Your task to perform on an android device: Add dell xps to the cart on ebay Image 0: 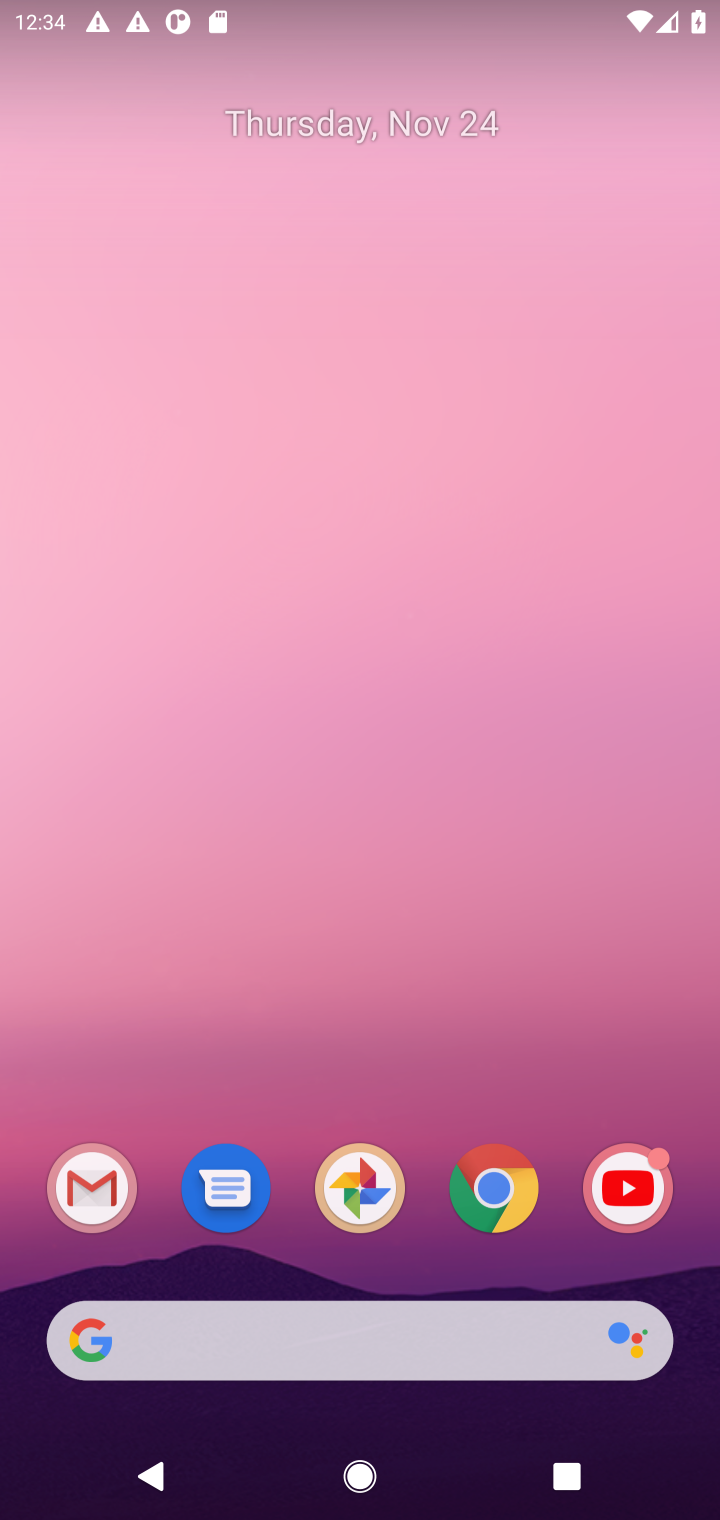
Step 0: click (533, 273)
Your task to perform on an android device: Add dell xps to the cart on ebay Image 1: 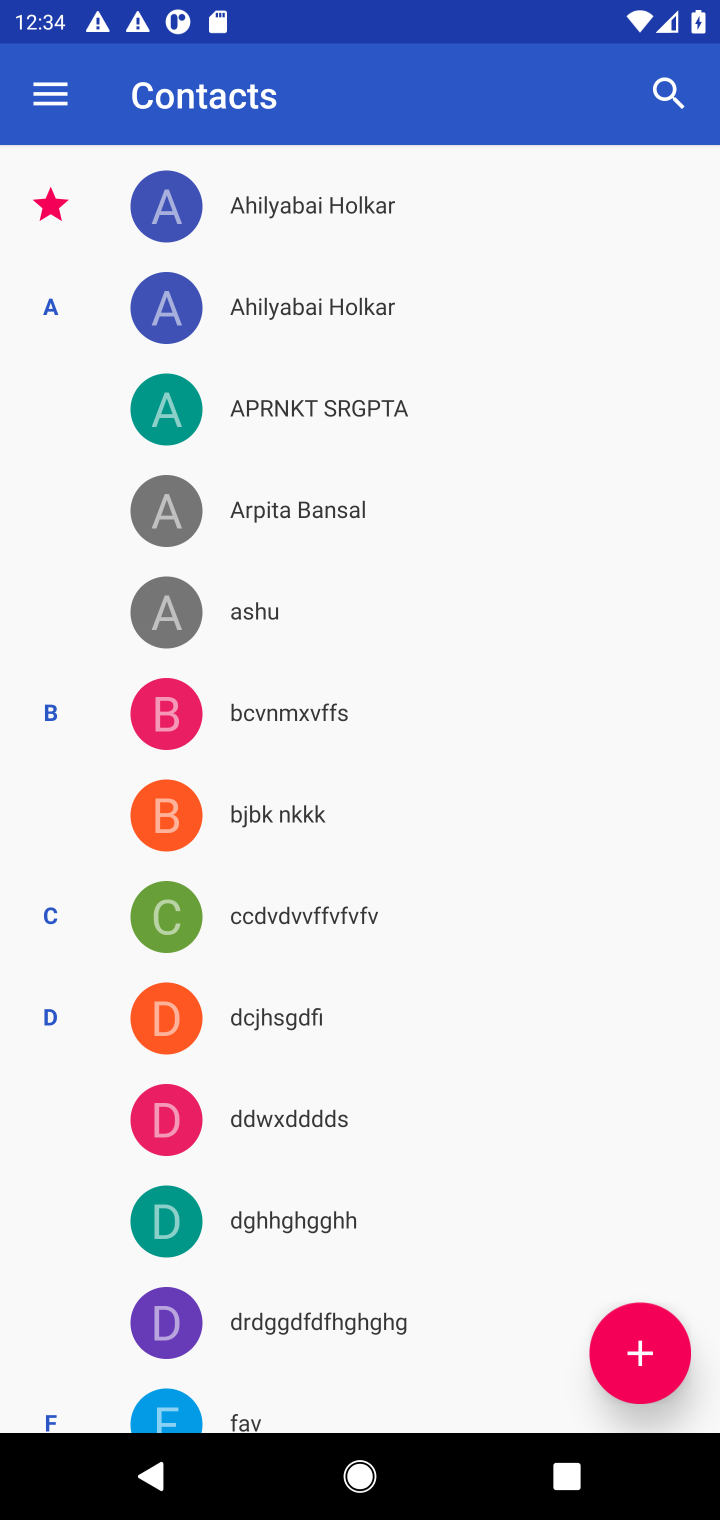
Step 1: press home button
Your task to perform on an android device: Add dell xps to the cart on ebay Image 2: 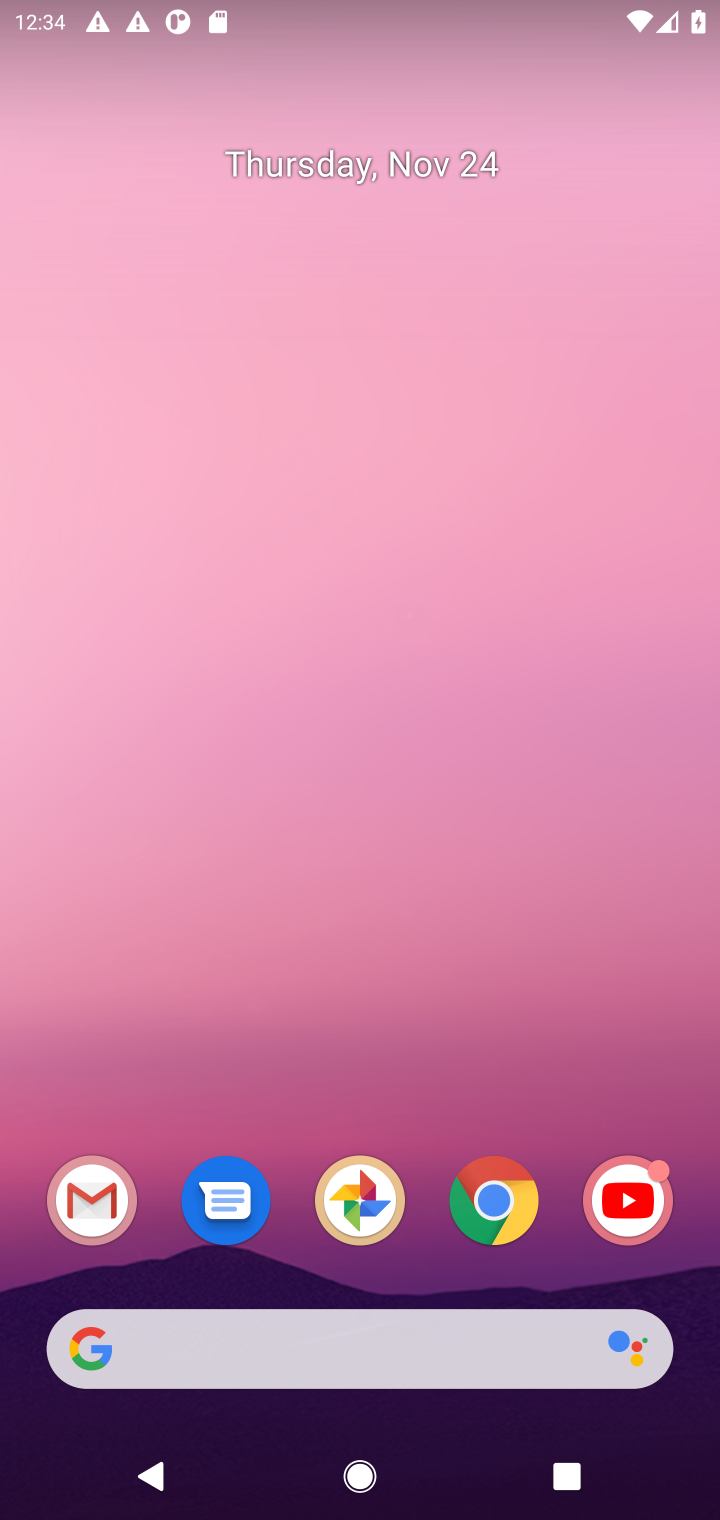
Step 2: click (248, 1367)
Your task to perform on an android device: Add dell xps to the cart on ebay Image 3: 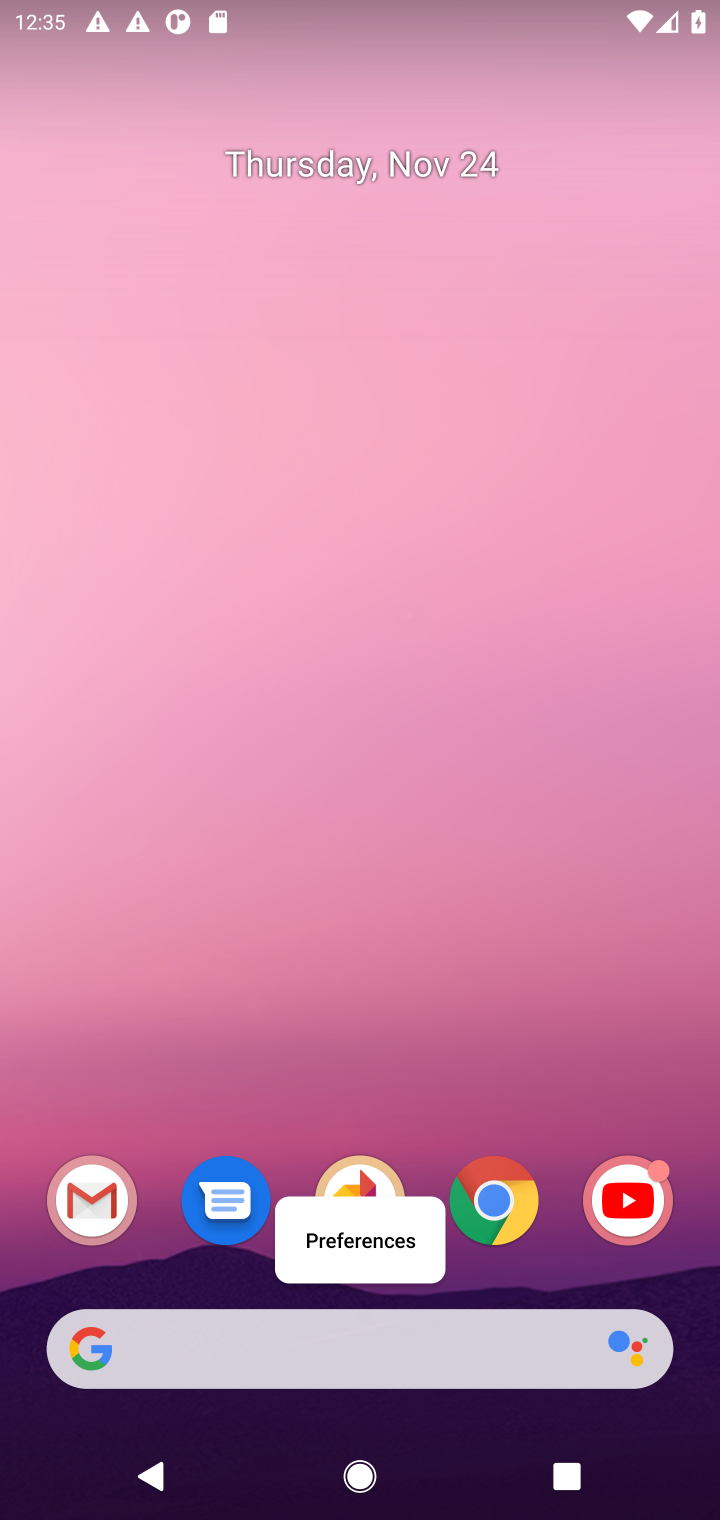
Step 3: type "ebay.com"
Your task to perform on an android device: Add dell xps to the cart on ebay Image 4: 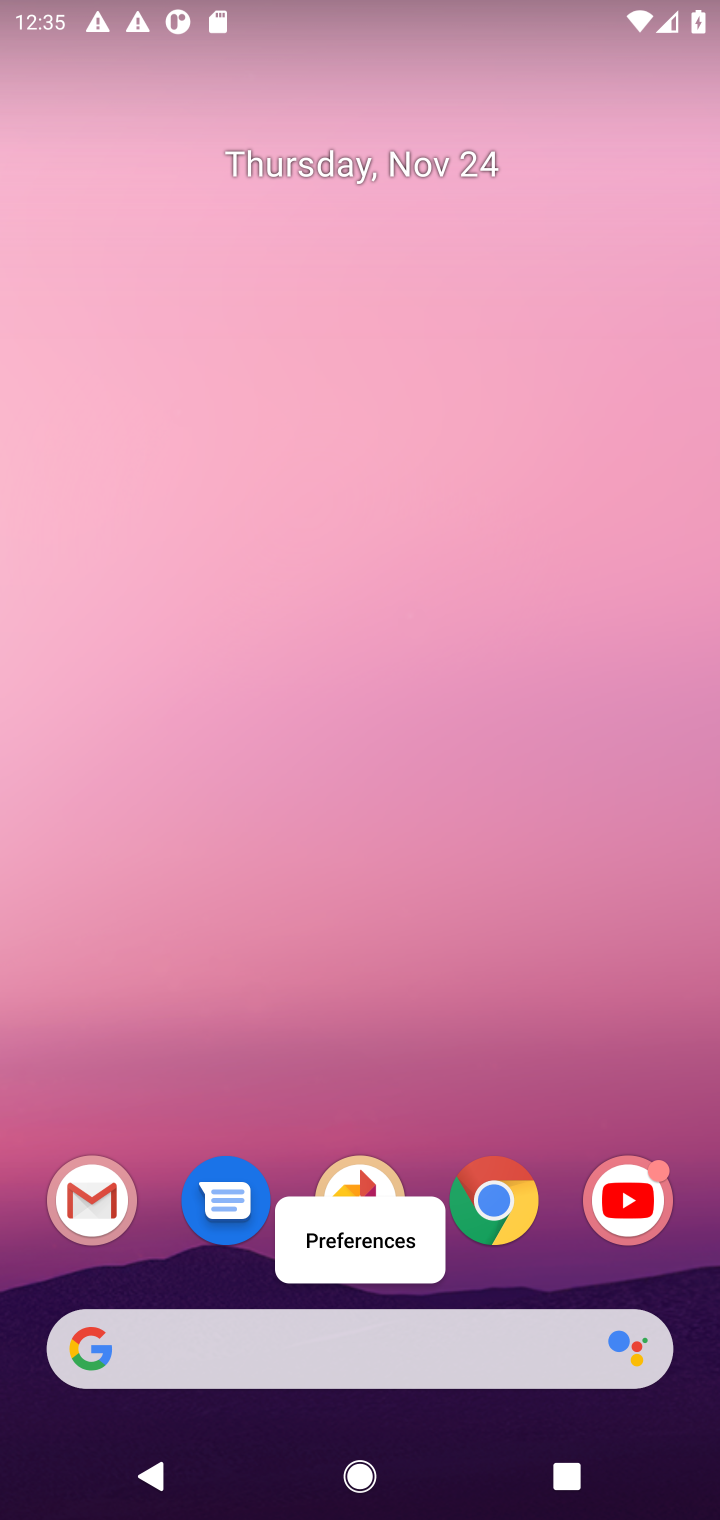
Step 4: click (345, 1338)
Your task to perform on an android device: Add dell xps to the cart on ebay Image 5: 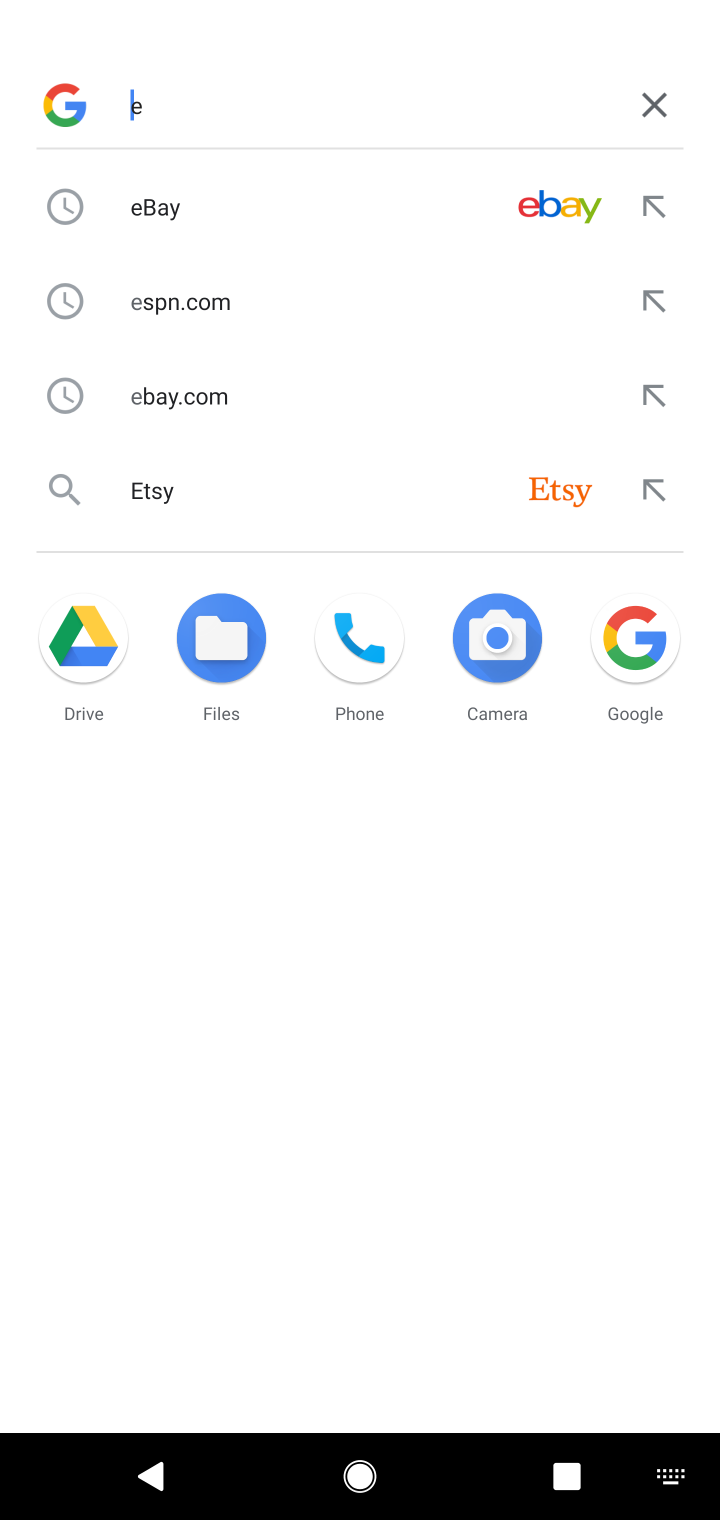
Step 5: click (257, 245)
Your task to perform on an android device: Add dell xps to the cart on ebay Image 6: 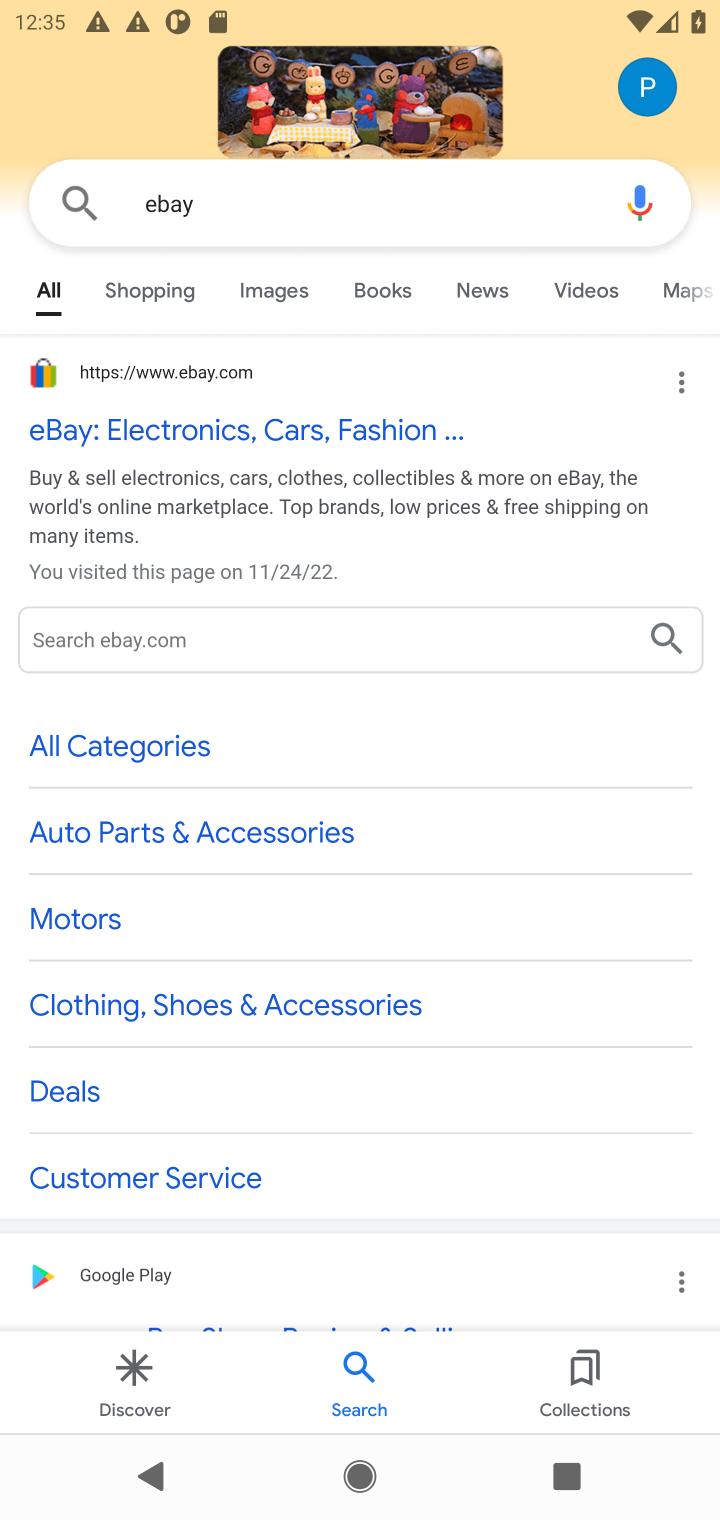
Step 6: click (266, 405)
Your task to perform on an android device: Add dell xps to the cart on ebay Image 7: 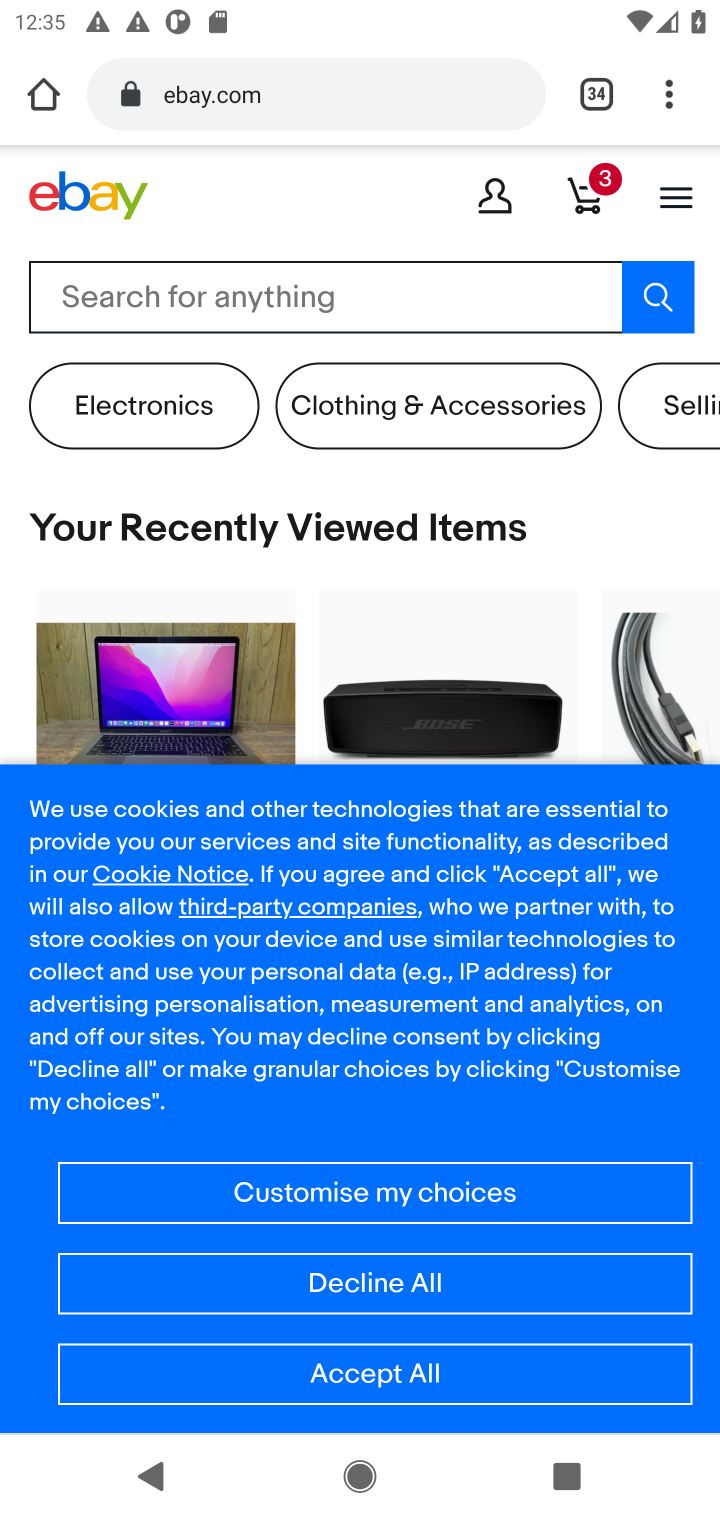
Step 7: click (262, 292)
Your task to perform on an android device: Add dell xps to the cart on ebay Image 8: 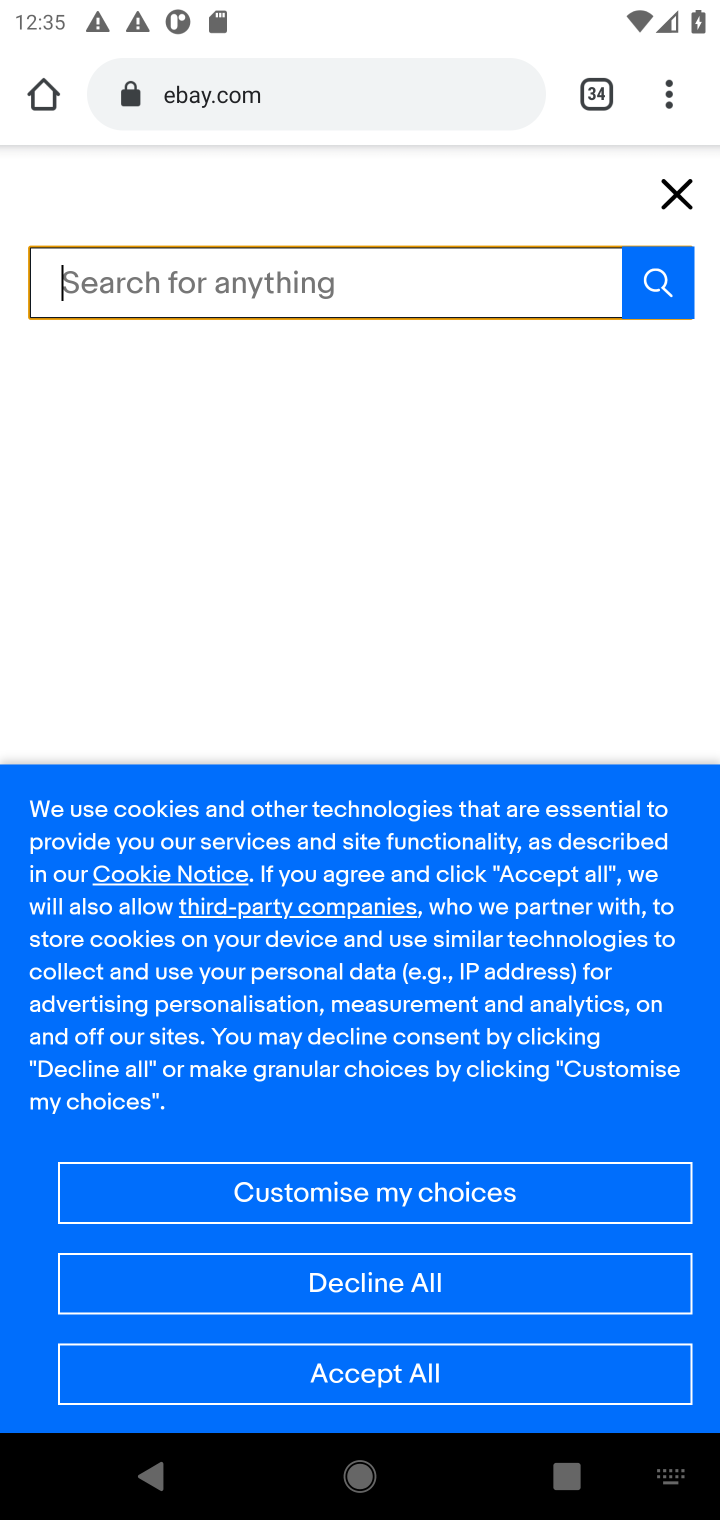
Step 8: type "dell xps"
Your task to perform on an android device: Add dell xps to the cart on ebay Image 9: 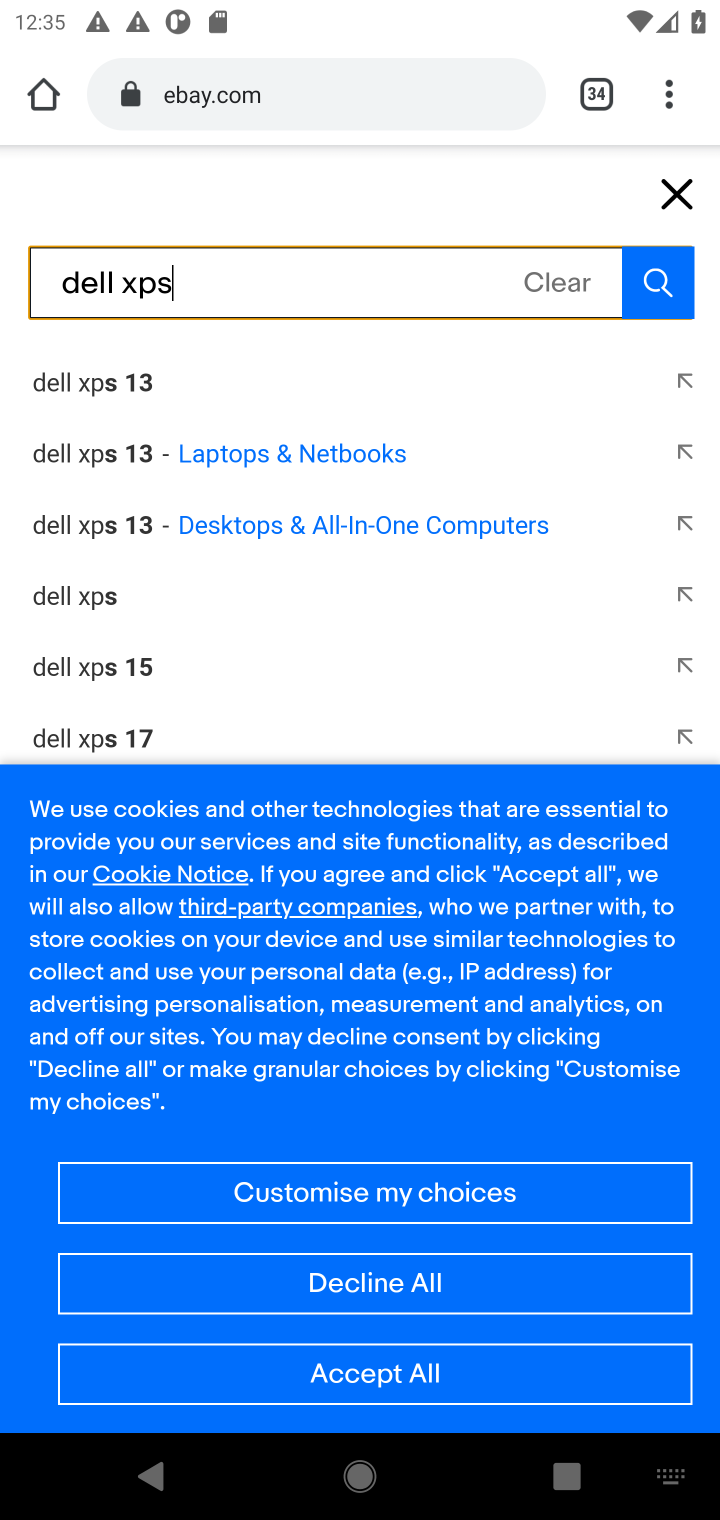
Step 9: click (664, 304)
Your task to perform on an android device: Add dell xps to the cart on ebay Image 10: 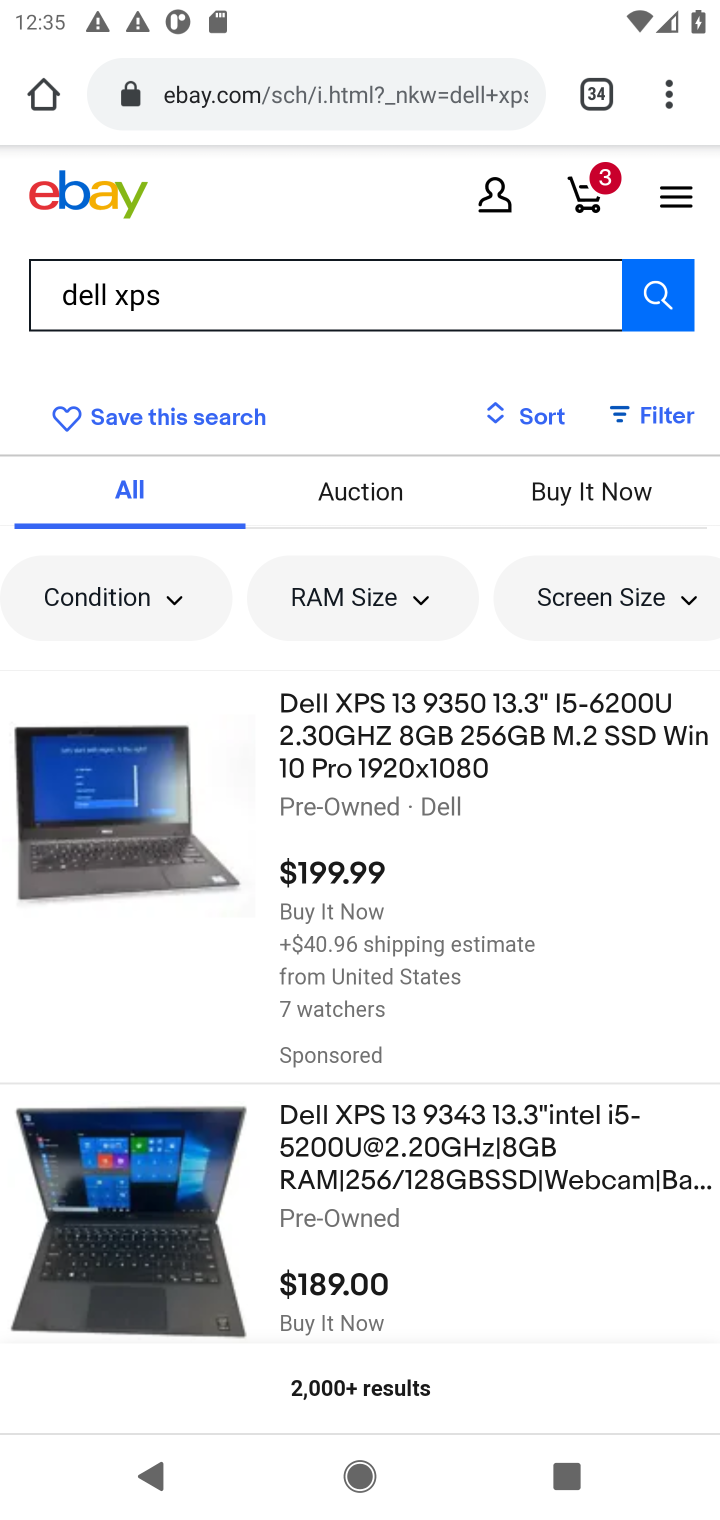
Step 10: click (370, 700)
Your task to perform on an android device: Add dell xps to the cart on ebay Image 11: 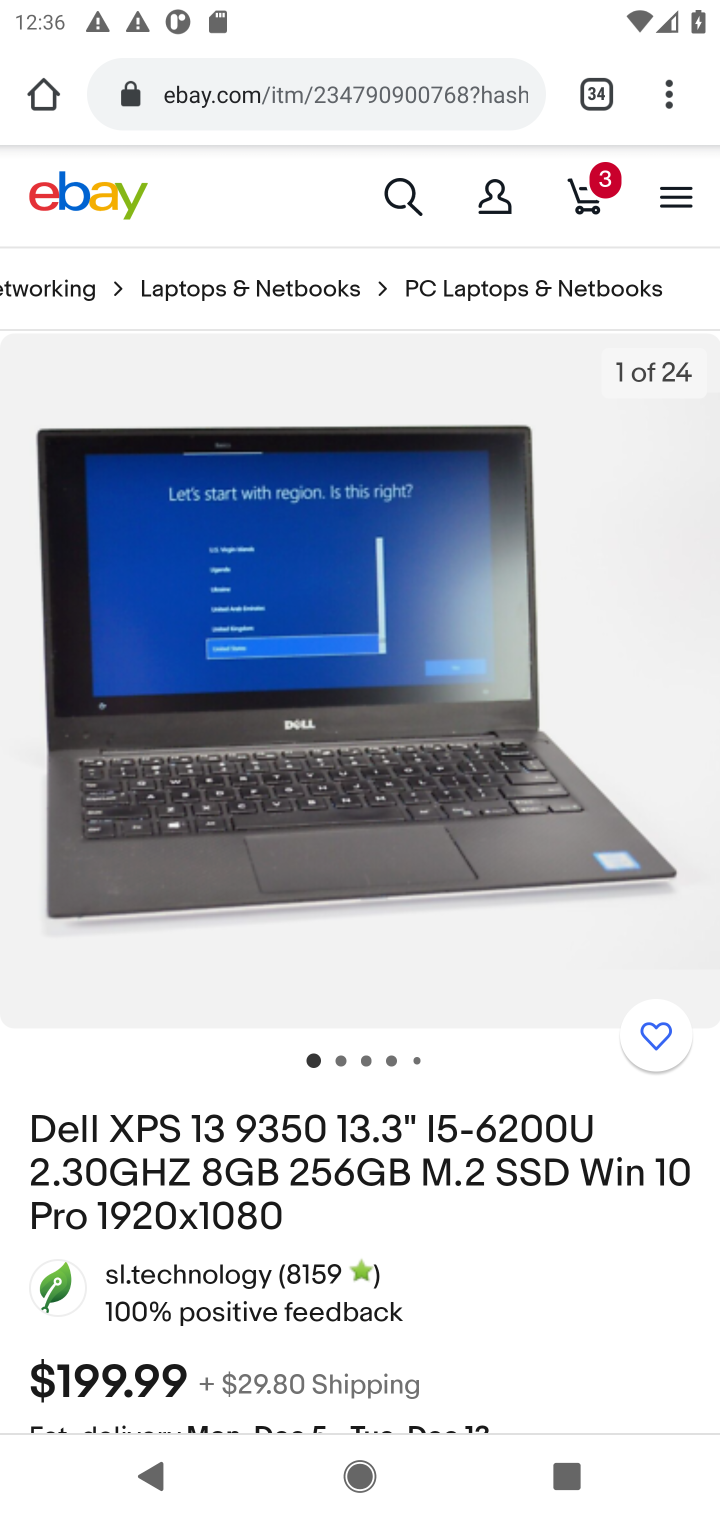
Step 11: drag from (628, 1341) to (432, 654)
Your task to perform on an android device: Add dell xps to the cart on ebay Image 12: 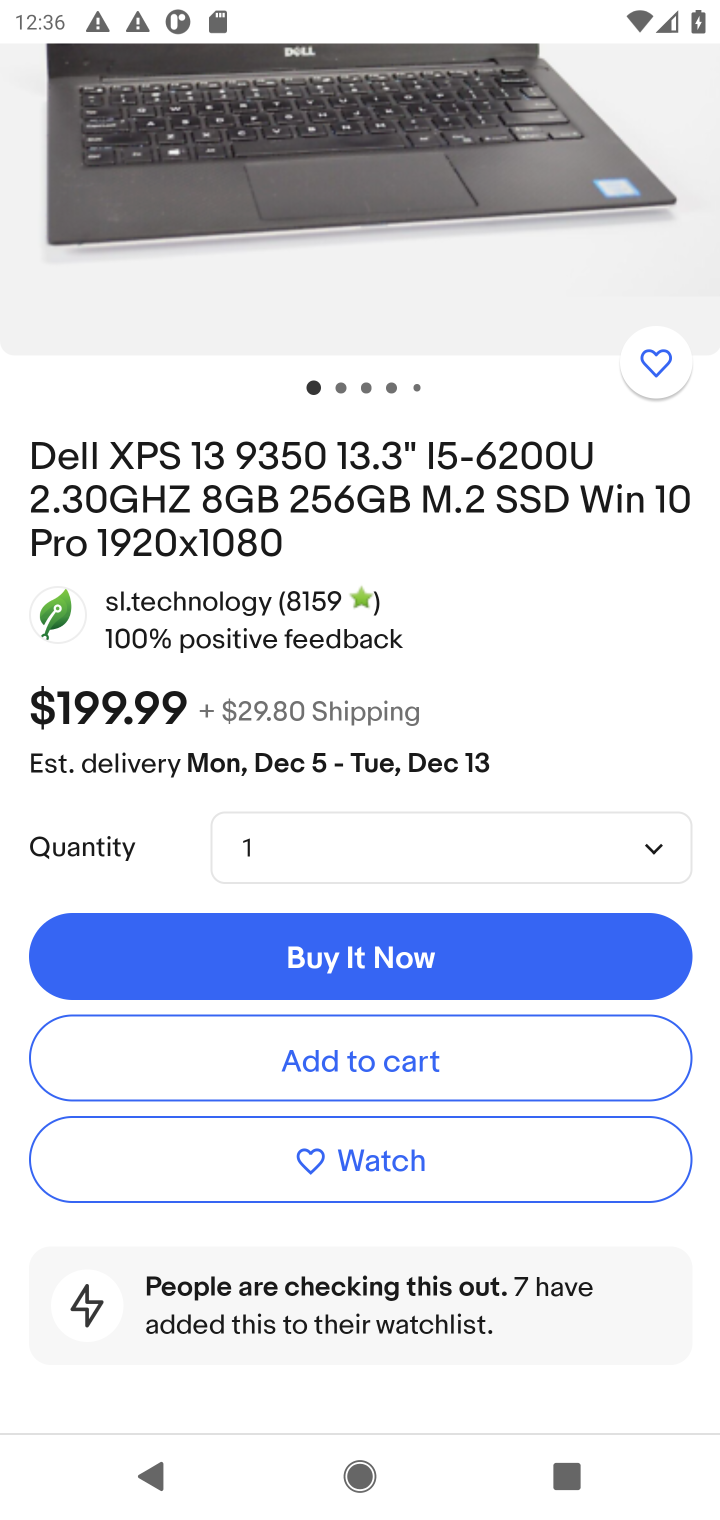
Step 12: click (552, 1083)
Your task to perform on an android device: Add dell xps to the cart on ebay Image 13: 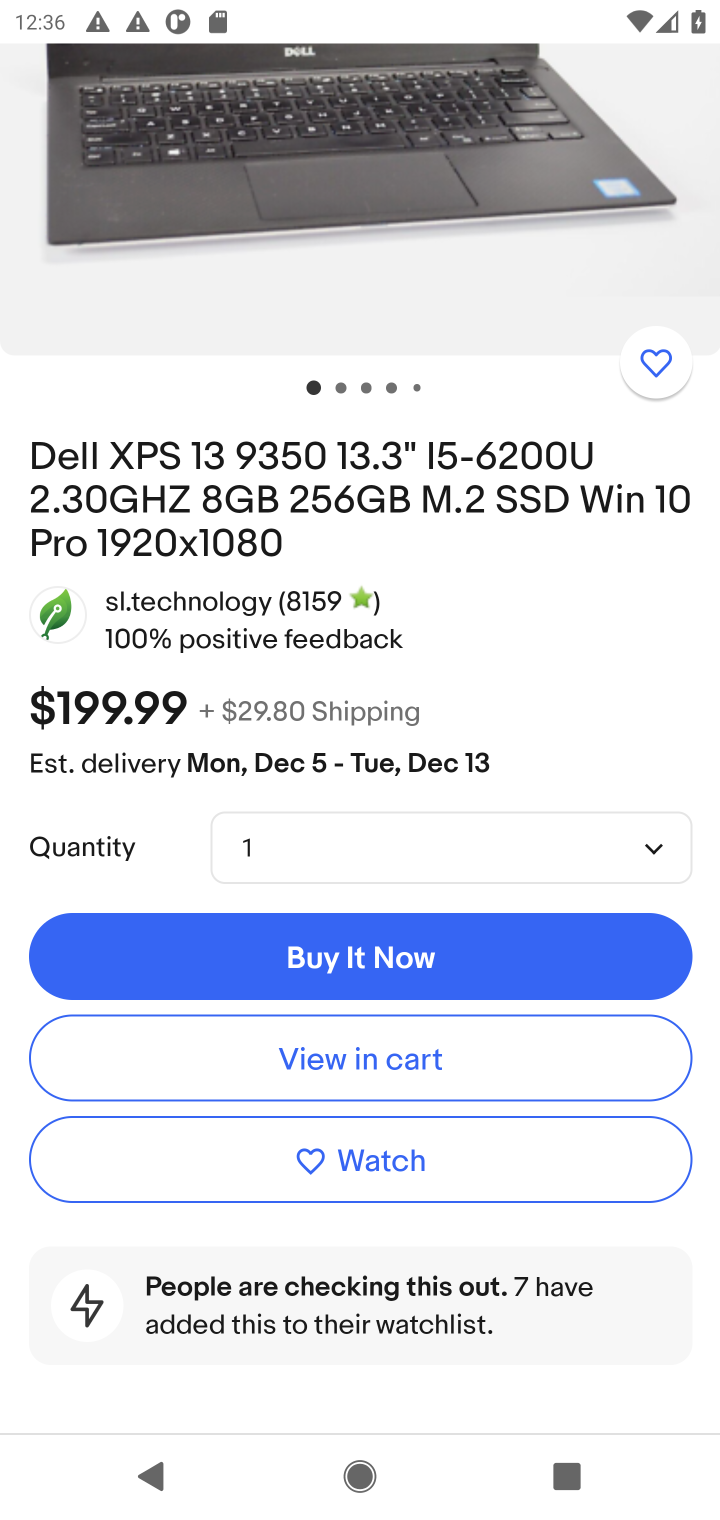
Step 13: task complete